Your task to perform on an android device: Open Chrome and go to settings Image 0: 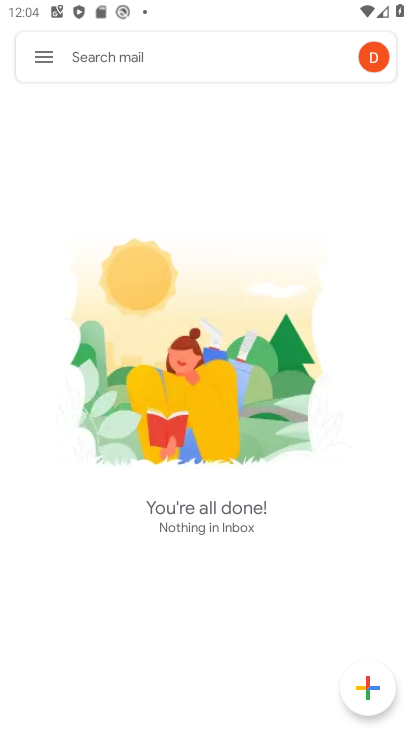
Step 0: press home button
Your task to perform on an android device: Open Chrome and go to settings Image 1: 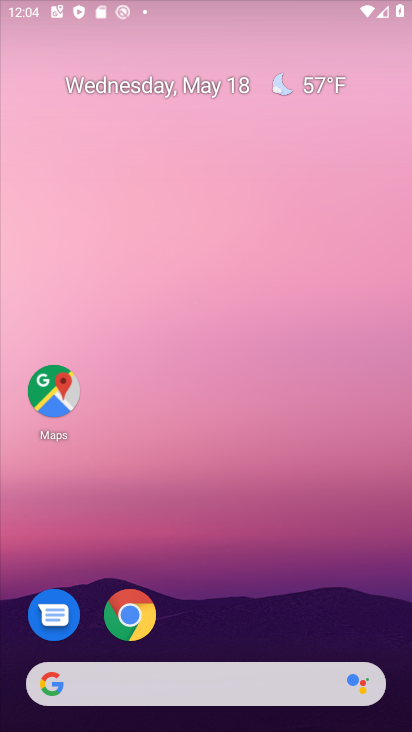
Step 1: drag from (382, 633) to (406, 562)
Your task to perform on an android device: Open Chrome and go to settings Image 2: 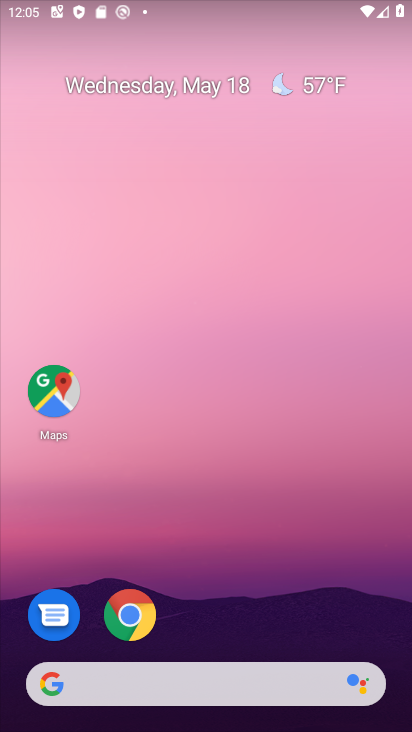
Step 2: click (136, 599)
Your task to perform on an android device: Open Chrome and go to settings Image 3: 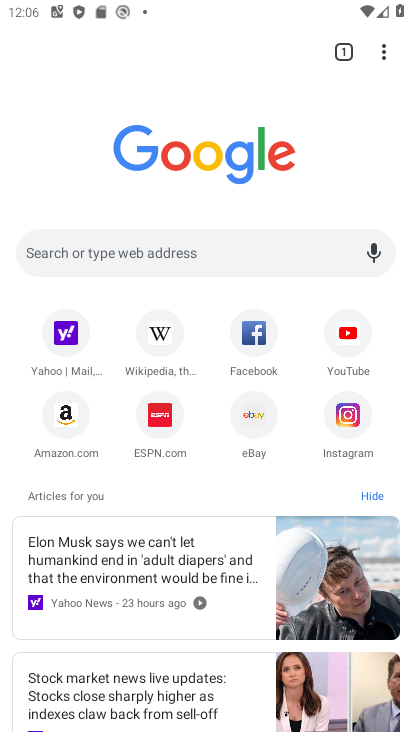
Step 3: click (380, 49)
Your task to perform on an android device: Open Chrome and go to settings Image 4: 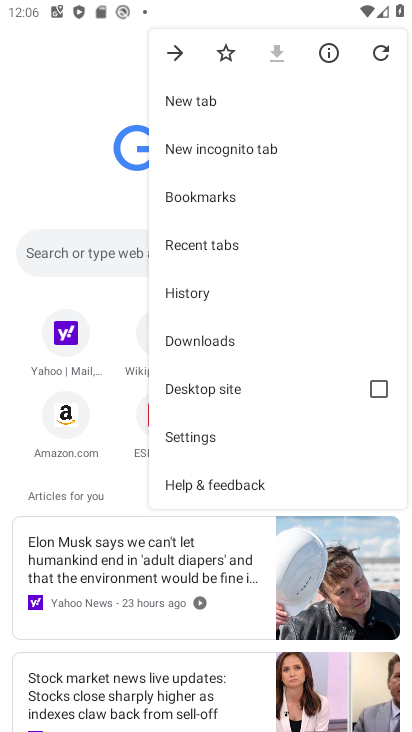
Step 4: click (228, 434)
Your task to perform on an android device: Open Chrome and go to settings Image 5: 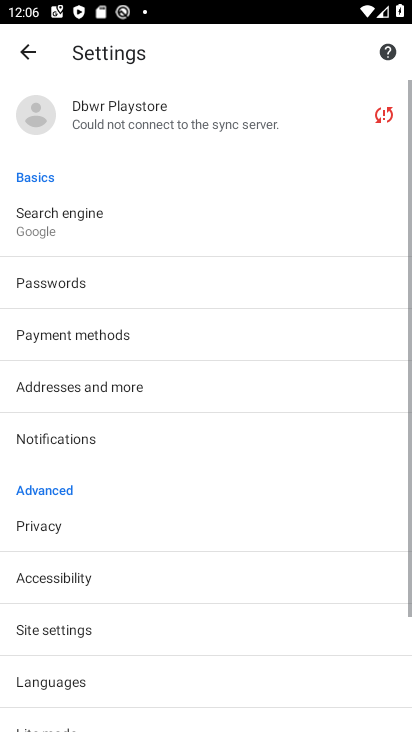
Step 5: task complete